Your task to perform on an android device: delete the emails in spam in the gmail app Image 0: 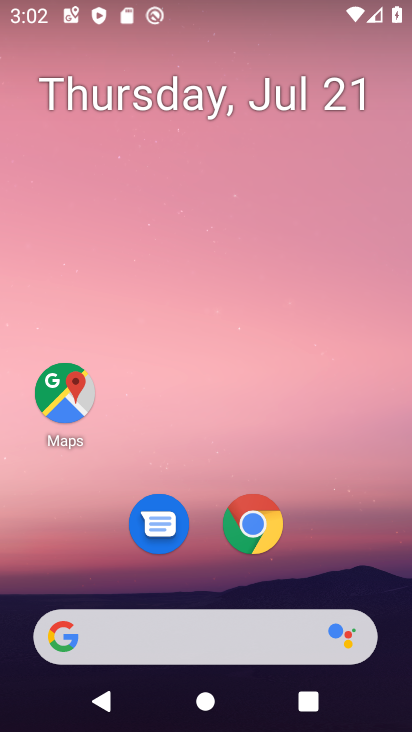
Step 0: press home button
Your task to perform on an android device: delete the emails in spam in the gmail app Image 1: 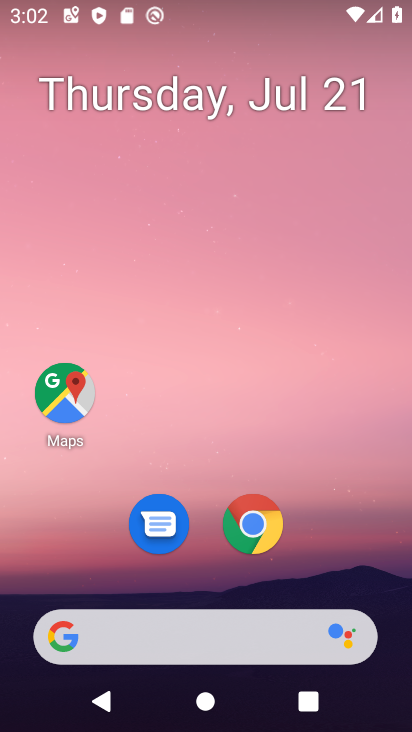
Step 1: drag from (215, 448) to (266, 157)
Your task to perform on an android device: delete the emails in spam in the gmail app Image 2: 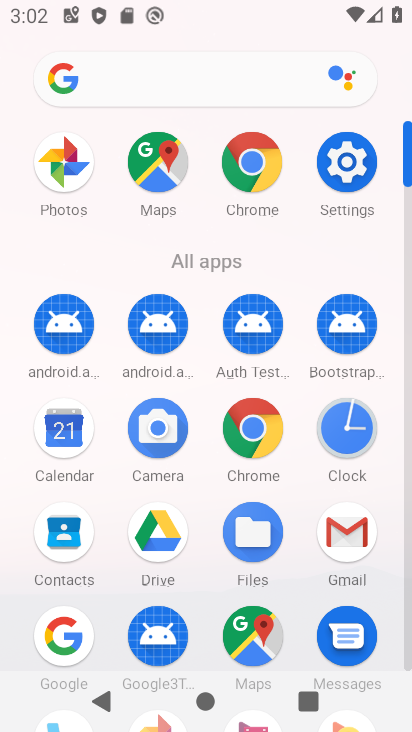
Step 2: click (347, 550)
Your task to perform on an android device: delete the emails in spam in the gmail app Image 3: 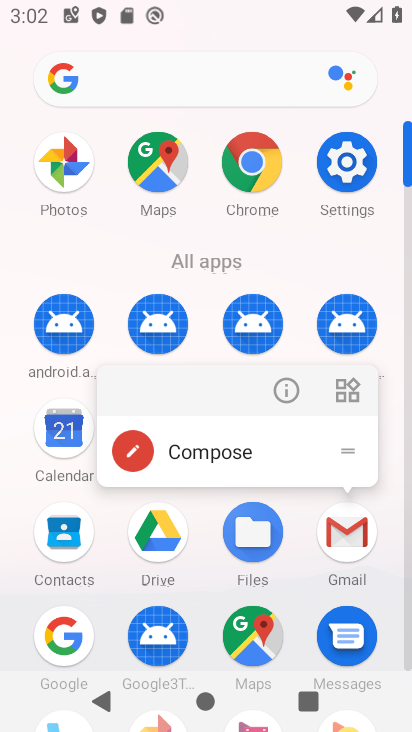
Step 3: click (345, 542)
Your task to perform on an android device: delete the emails in spam in the gmail app Image 4: 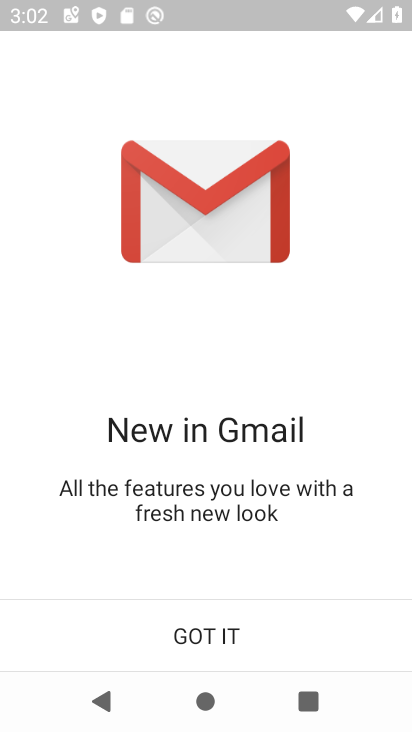
Step 4: click (204, 635)
Your task to perform on an android device: delete the emails in spam in the gmail app Image 5: 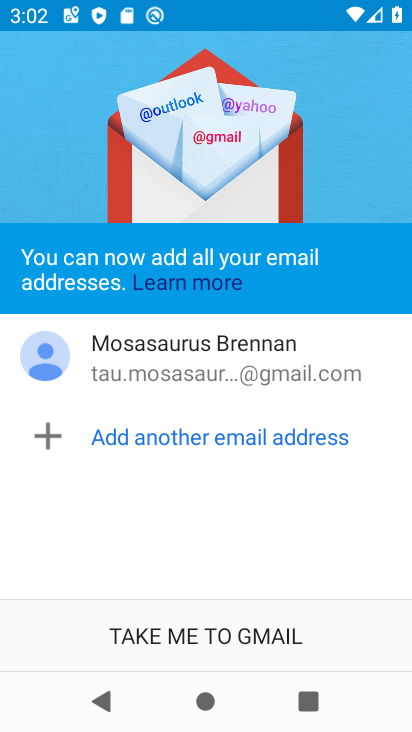
Step 5: click (204, 634)
Your task to perform on an android device: delete the emails in spam in the gmail app Image 6: 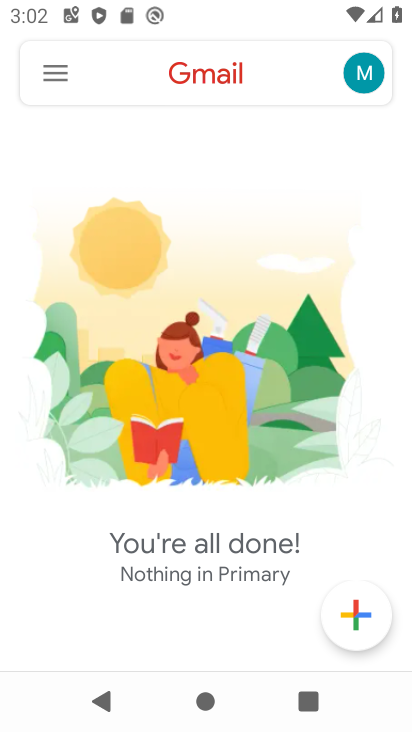
Step 6: click (48, 77)
Your task to perform on an android device: delete the emails in spam in the gmail app Image 7: 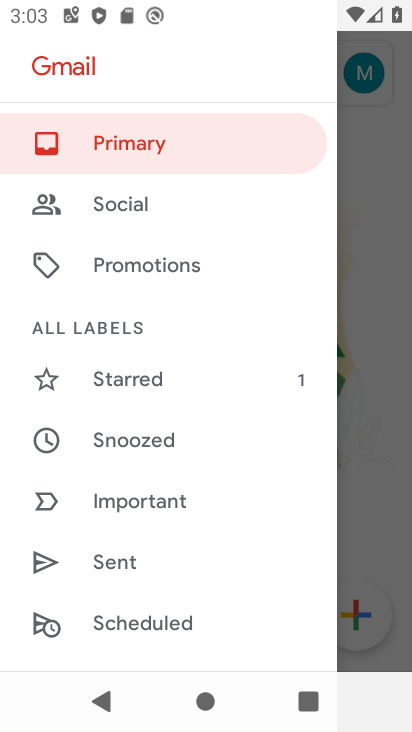
Step 7: drag from (150, 580) to (208, 145)
Your task to perform on an android device: delete the emails in spam in the gmail app Image 8: 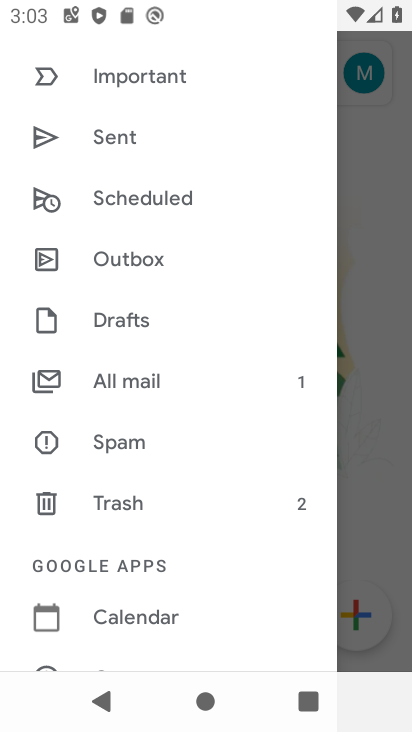
Step 8: click (140, 446)
Your task to perform on an android device: delete the emails in spam in the gmail app Image 9: 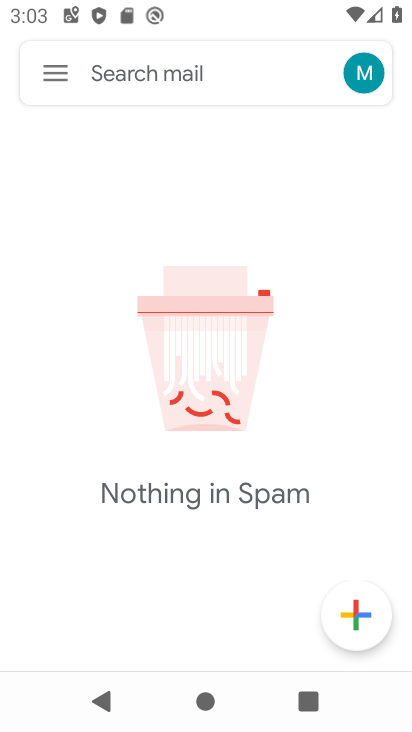
Step 9: task complete